Your task to perform on an android device: install app "Flipkart Online Shopping App" Image 0: 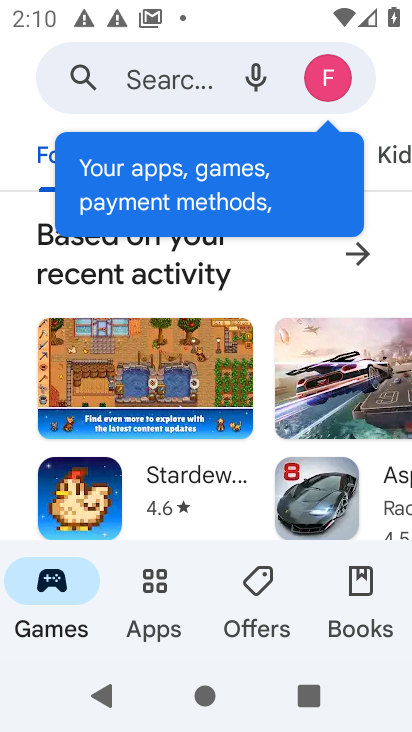
Step 0: press home button
Your task to perform on an android device: install app "Flipkart Online Shopping App" Image 1: 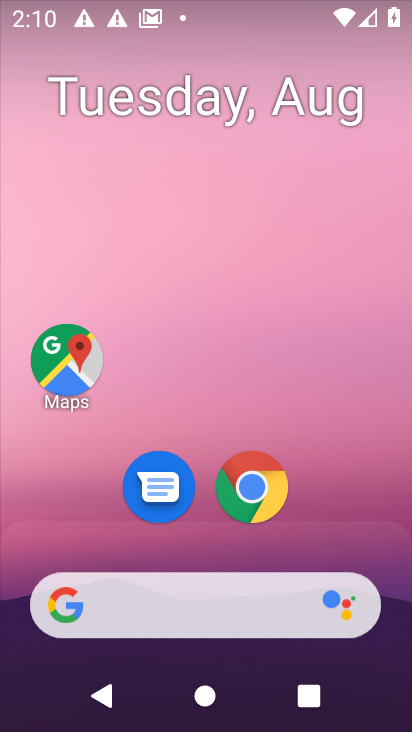
Step 1: drag from (173, 619) to (258, 104)
Your task to perform on an android device: install app "Flipkart Online Shopping App" Image 2: 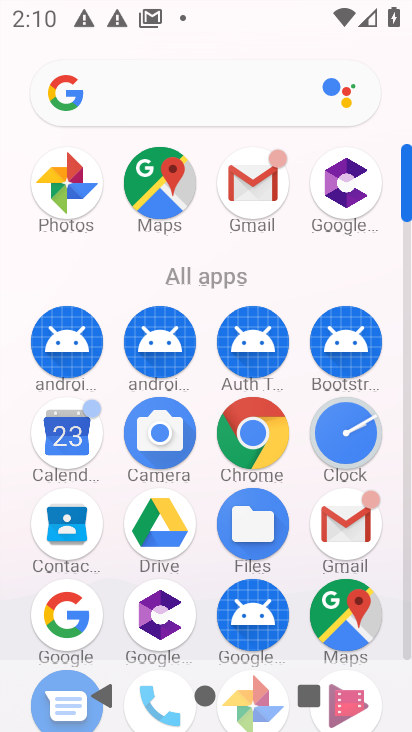
Step 2: drag from (205, 574) to (209, 181)
Your task to perform on an android device: install app "Flipkart Online Shopping App" Image 3: 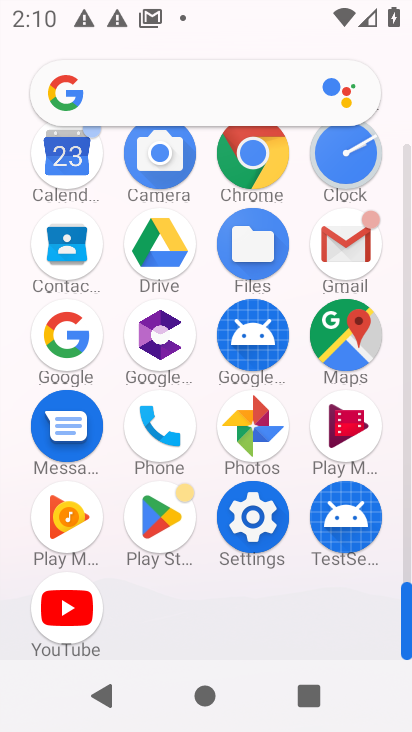
Step 3: click (167, 524)
Your task to perform on an android device: install app "Flipkart Online Shopping App" Image 4: 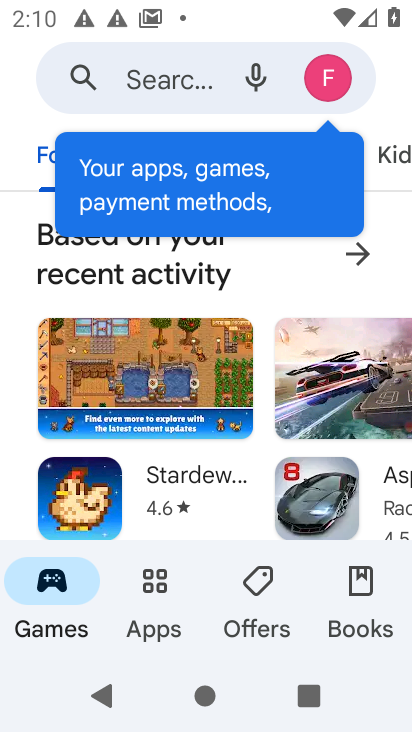
Step 4: click (188, 97)
Your task to perform on an android device: install app "Flipkart Online Shopping App" Image 5: 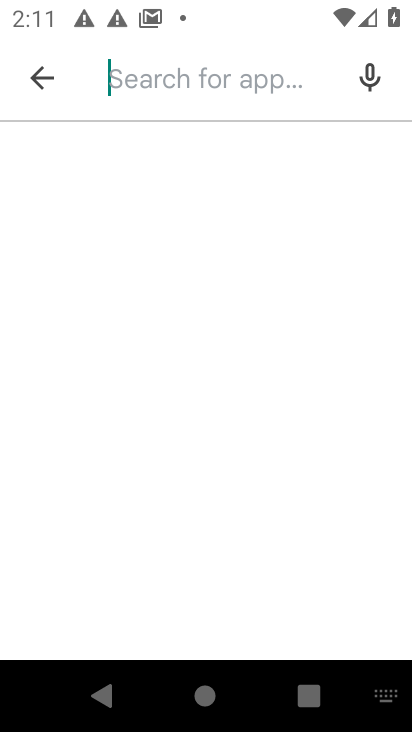
Step 5: type "Flipkart Online Shopping App"
Your task to perform on an android device: install app "Flipkart Online Shopping App" Image 6: 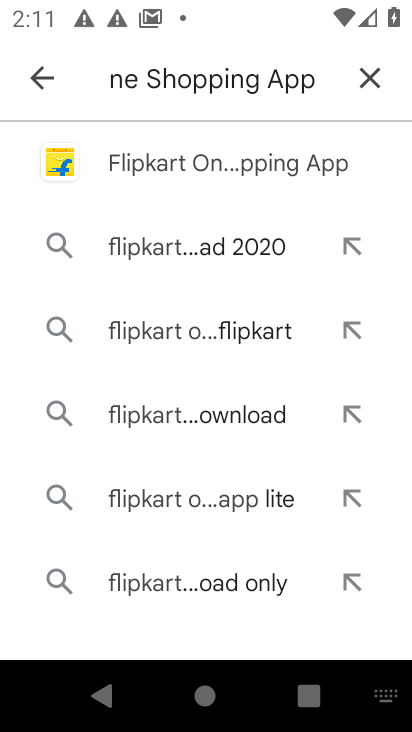
Step 6: click (129, 162)
Your task to perform on an android device: install app "Flipkart Online Shopping App" Image 7: 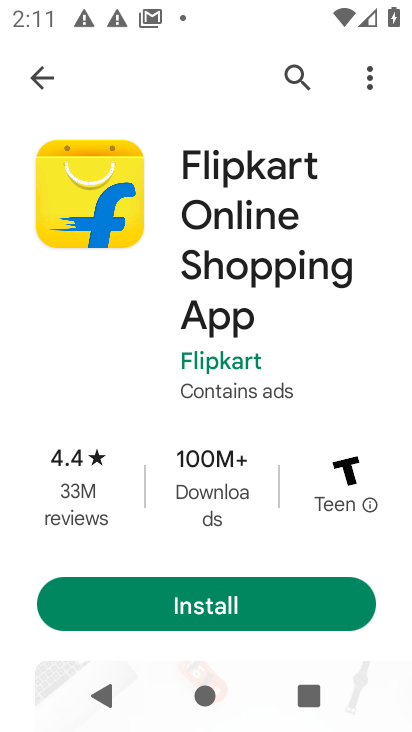
Step 7: click (201, 591)
Your task to perform on an android device: install app "Flipkart Online Shopping App" Image 8: 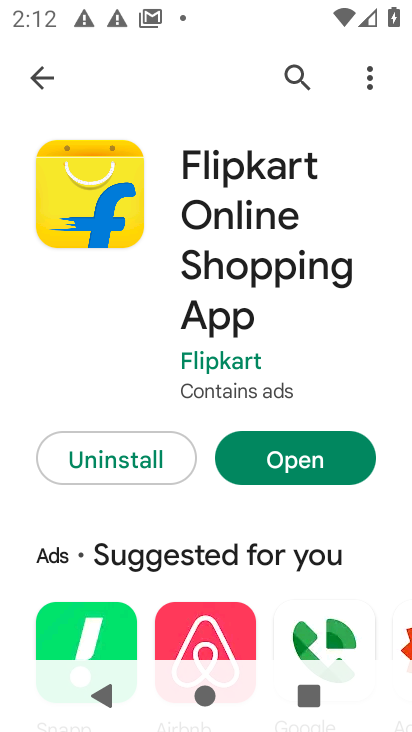
Step 8: task complete